Your task to perform on an android device: What's the weather going to be tomorrow? Image 0: 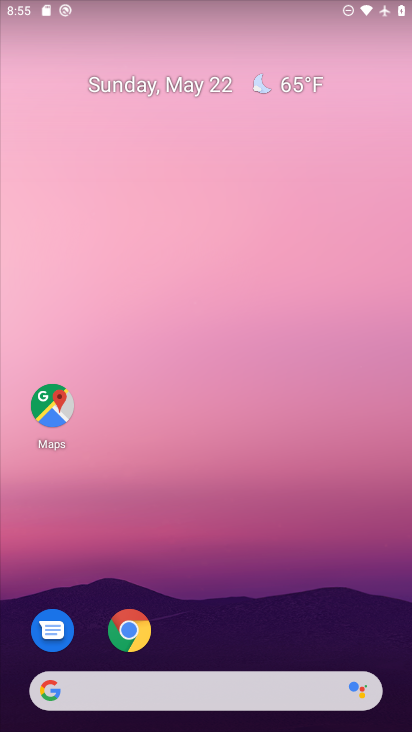
Step 0: press home button
Your task to perform on an android device: What's the weather going to be tomorrow? Image 1: 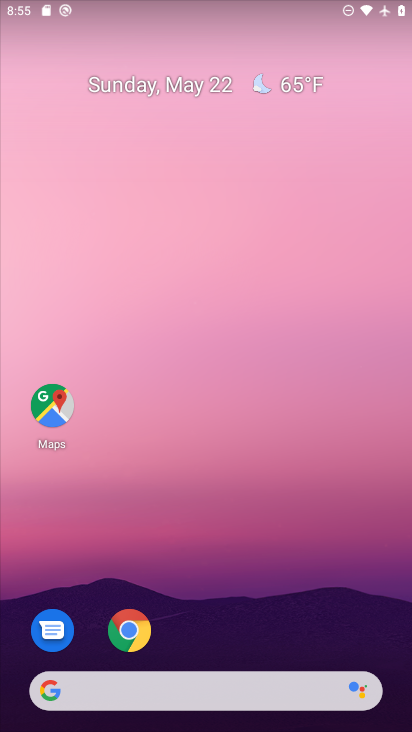
Step 1: click (55, 692)
Your task to perform on an android device: What's the weather going to be tomorrow? Image 2: 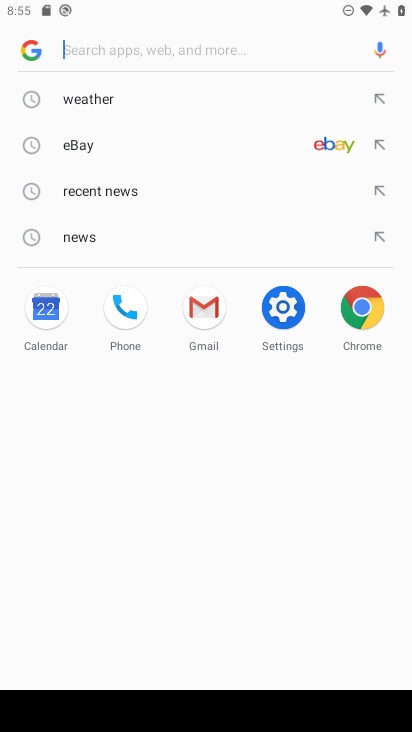
Step 2: click (95, 98)
Your task to perform on an android device: What's the weather going to be tomorrow? Image 3: 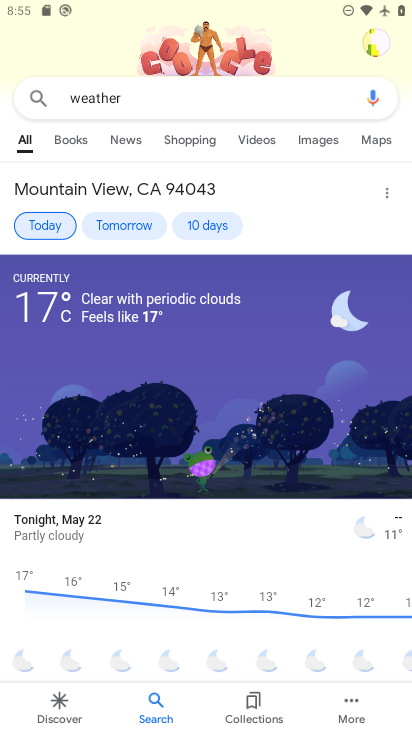
Step 3: click (114, 230)
Your task to perform on an android device: What's the weather going to be tomorrow? Image 4: 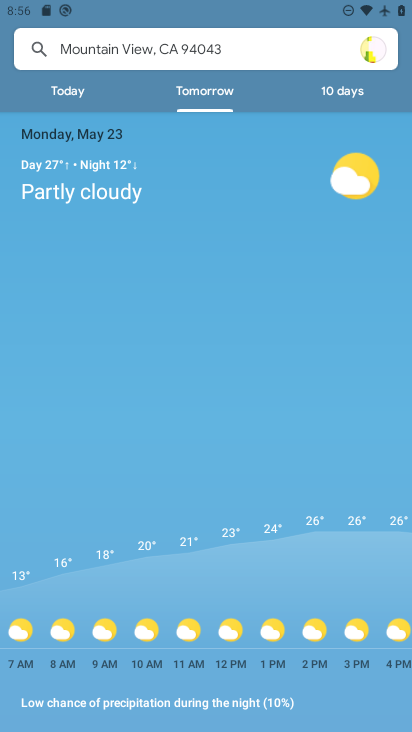
Step 4: task complete